Your task to perform on an android device: turn pop-ups off in chrome Image 0: 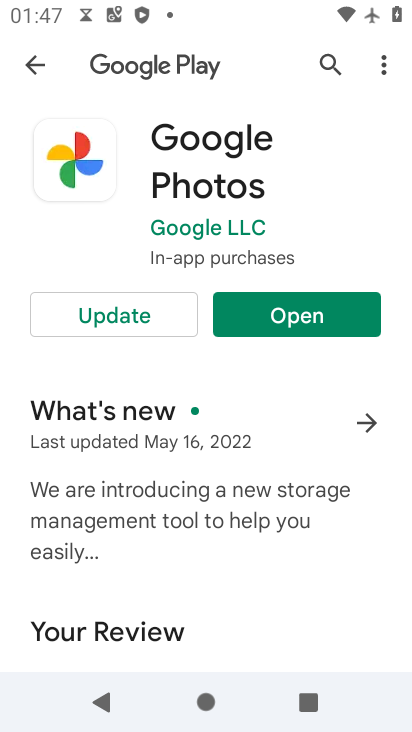
Step 0: press home button
Your task to perform on an android device: turn pop-ups off in chrome Image 1: 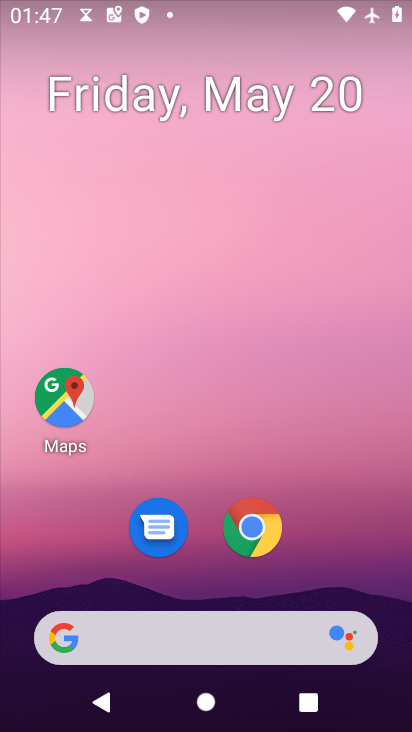
Step 1: click (245, 534)
Your task to perform on an android device: turn pop-ups off in chrome Image 2: 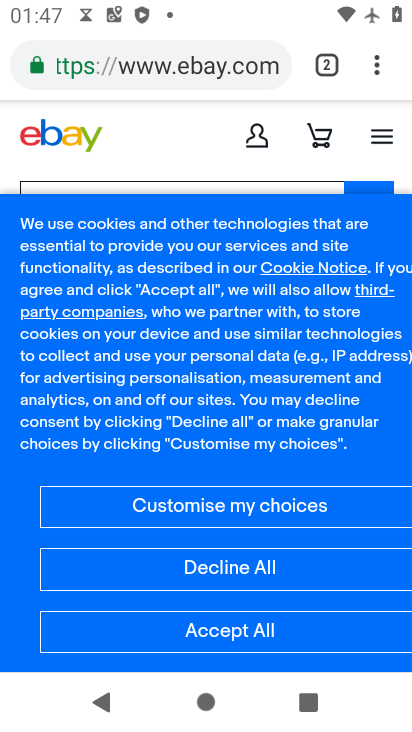
Step 2: drag from (380, 69) to (269, 576)
Your task to perform on an android device: turn pop-ups off in chrome Image 3: 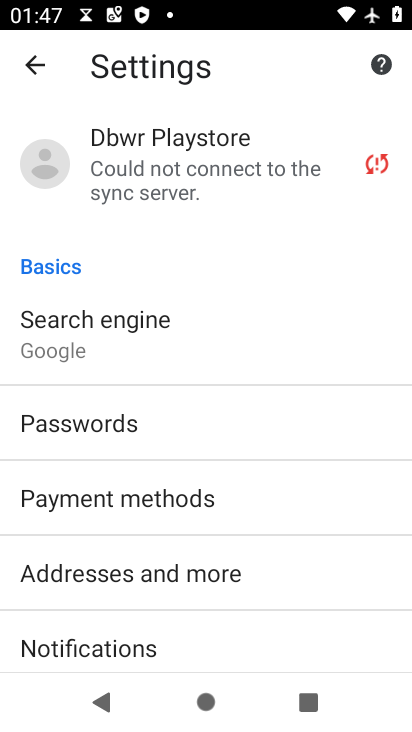
Step 3: drag from (220, 629) to (299, 184)
Your task to perform on an android device: turn pop-ups off in chrome Image 4: 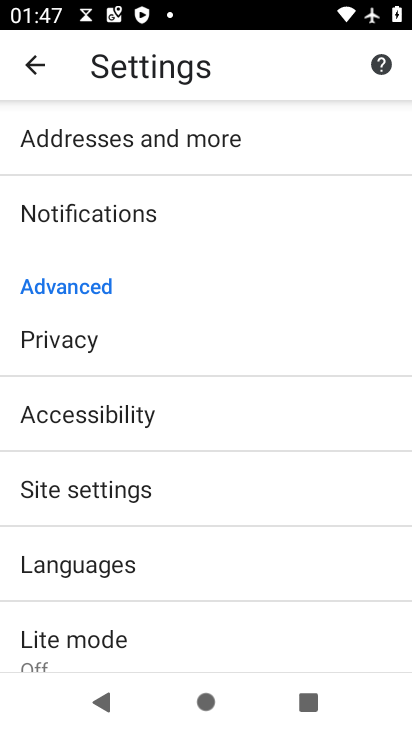
Step 4: click (124, 492)
Your task to perform on an android device: turn pop-ups off in chrome Image 5: 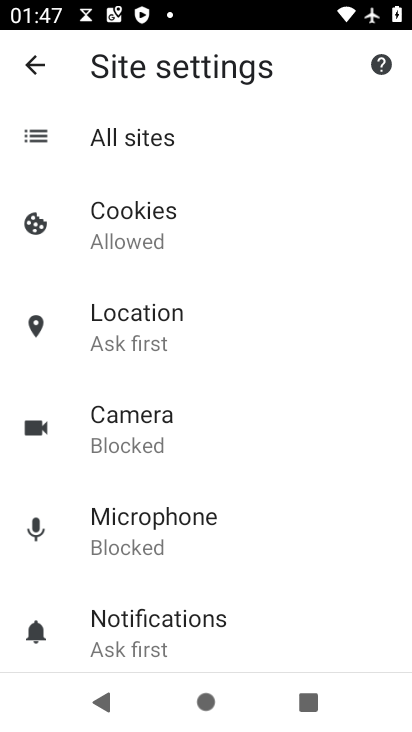
Step 5: drag from (256, 621) to (312, 267)
Your task to perform on an android device: turn pop-ups off in chrome Image 6: 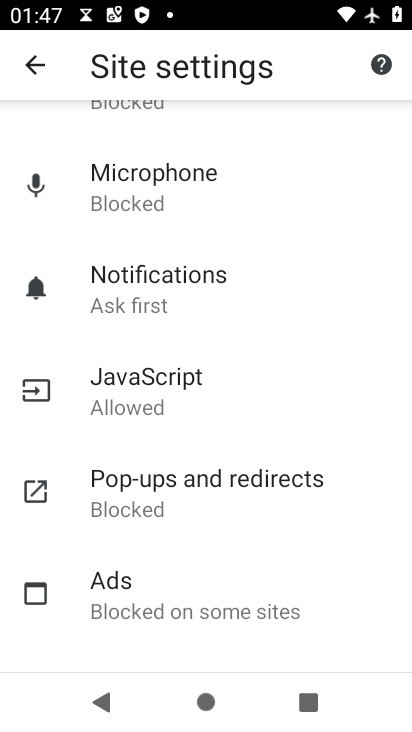
Step 6: click (144, 491)
Your task to perform on an android device: turn pop-ups off in chrome Image 7: 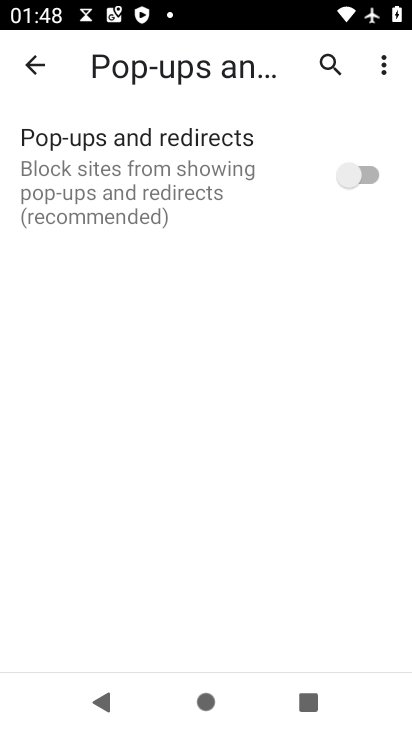
Step 7: task complete